Your task to perform on an android device: Open Wikipedia Image 0: 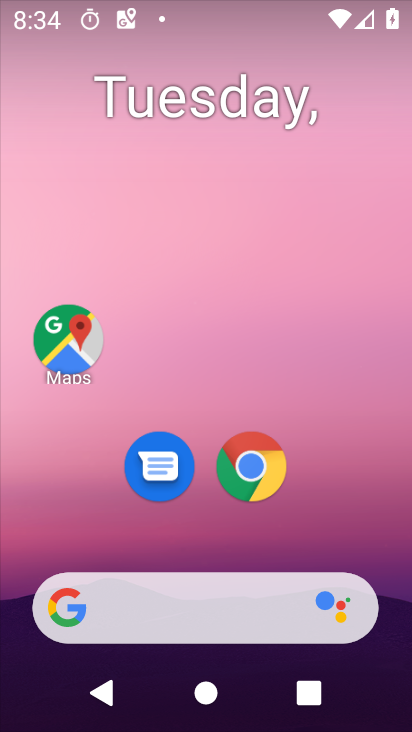
Step 0: drag from (229, 540) to (247, 1)
Your task to perform on an android device: Open Wikipedia Image 1: 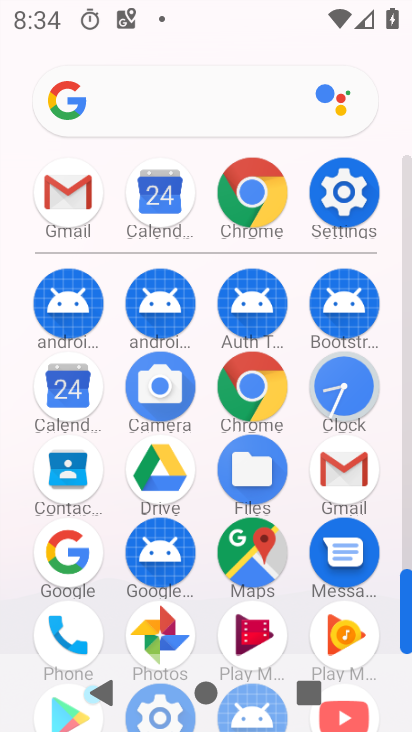
Step 1: click (254, 195)
Your task to perform on an android device: Open Wikipedia Image 2: 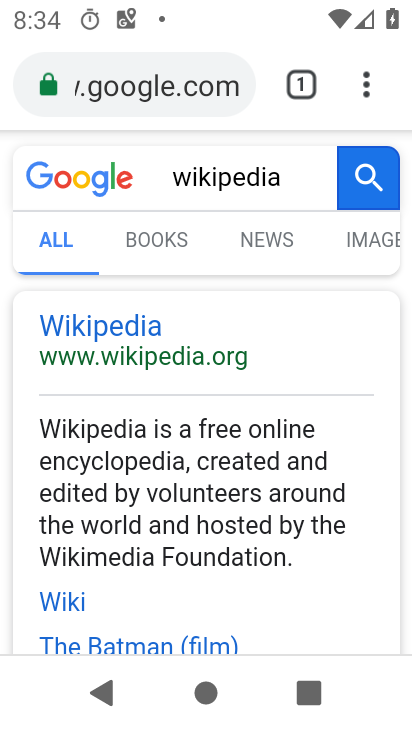
Step 2: click (183, 354)
Your task to perform on an android device: Open Wikipedia Image 3: 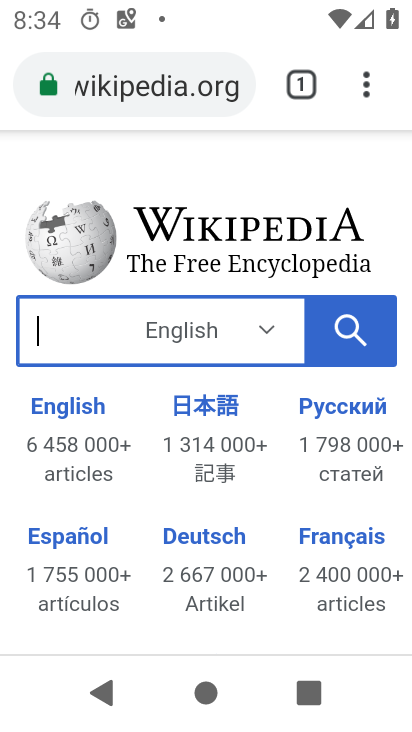
Step 3: task complete